Your task to perform on an android device: see tabs open on other devices in the chrome app Image 0: 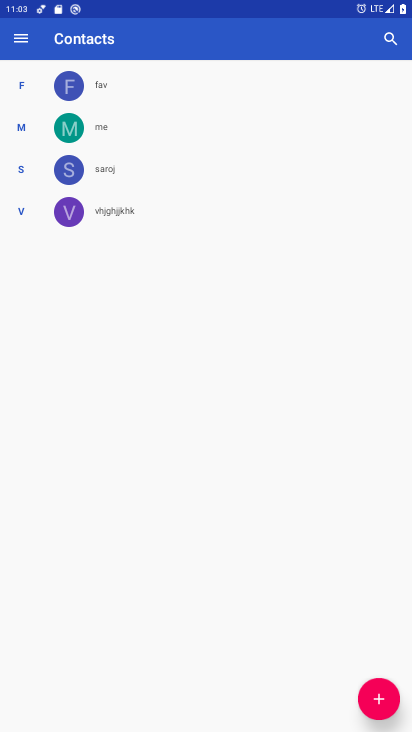
Step 0: press home button
Your task to perform on an android device: see tabs open on other devices in the chrome app Image 1: 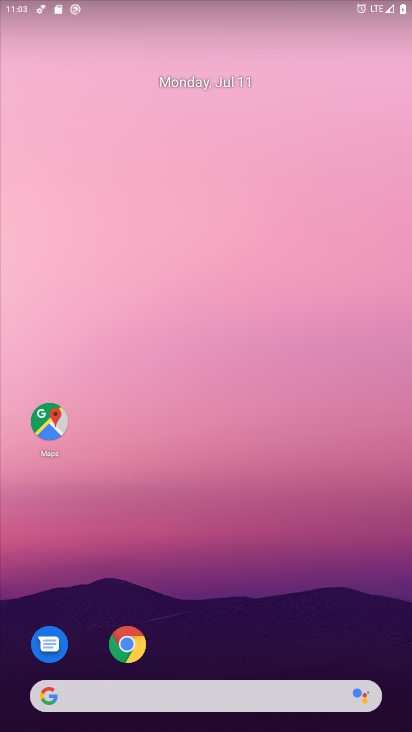
Step 1: drag from (313, 634) to (300, 53)
Your task to perform on an android device: see tabs open on other devices in the chrome app Image 2: 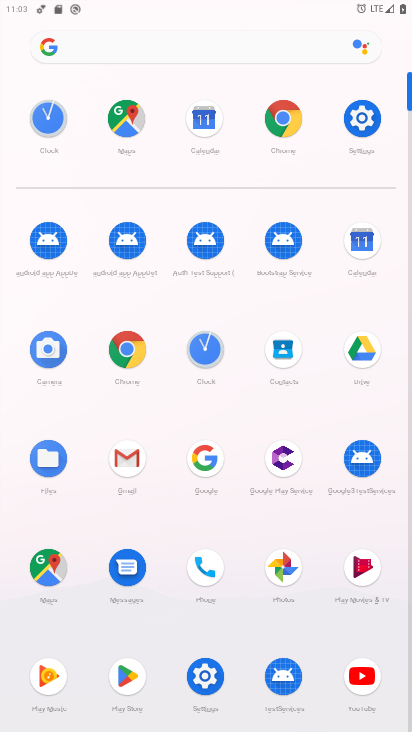
Step 2: click (278, 111)
Your task to perform on an android device: see tabs open on other devices in the chrome app Image 3: 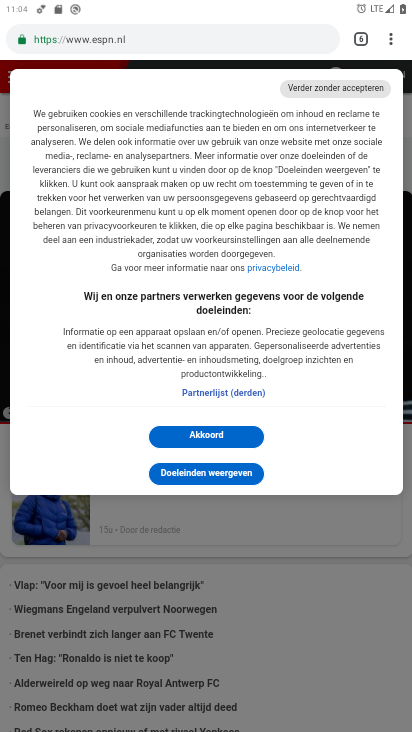
Step 3: click (392, 27)
Your task to perform on an android device: see tabs open on other devices in the chrome app Image 4: 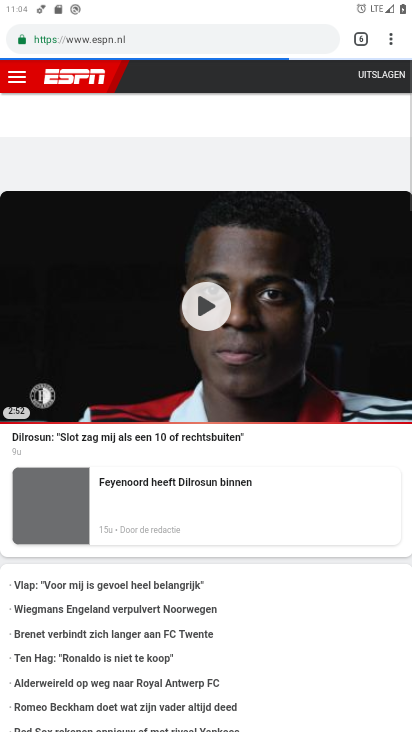
Step 4: click (392, 36)
Your task to perform on an android device: see tabs open on other devices in the chrome app Image 5: 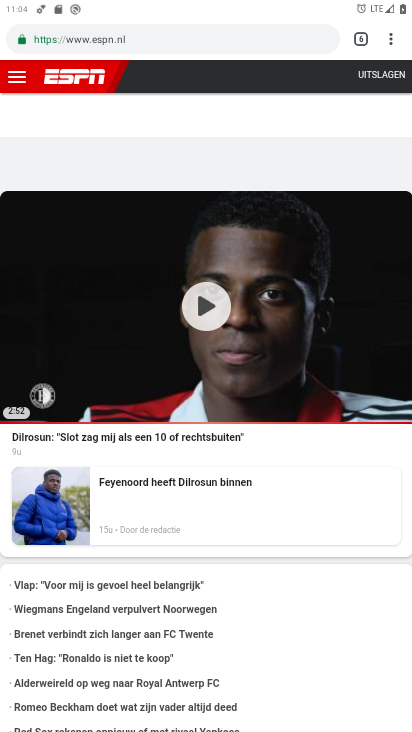
Step 5: click (392, 36)
Your task to perform on an android device: see tabs open on other devices in the chrome app Image 6: 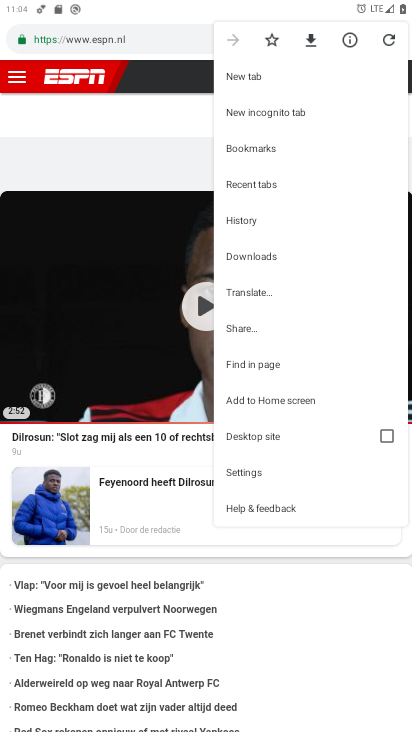
Step 6: drag from (266, 167) to (258, 227)
Your task to perform on an android device: see tabs open on other devices in the chrome app Image 7: 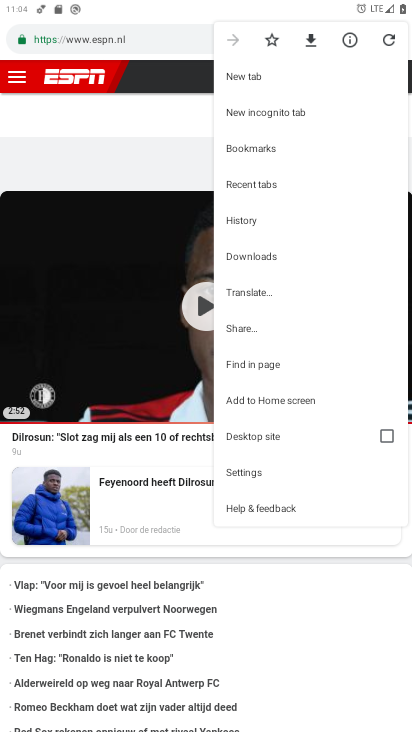
Step 7: click (257, 225)
Your task to perform on an android device: see tabs open on other devices in the chrome app Image 8: 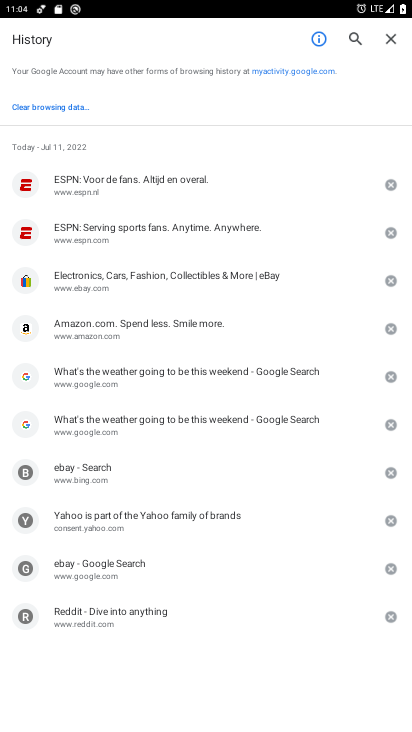
Step 8: task complete